Your task to perform on an android device: Open the calendar and show me this week's events? Image 0: 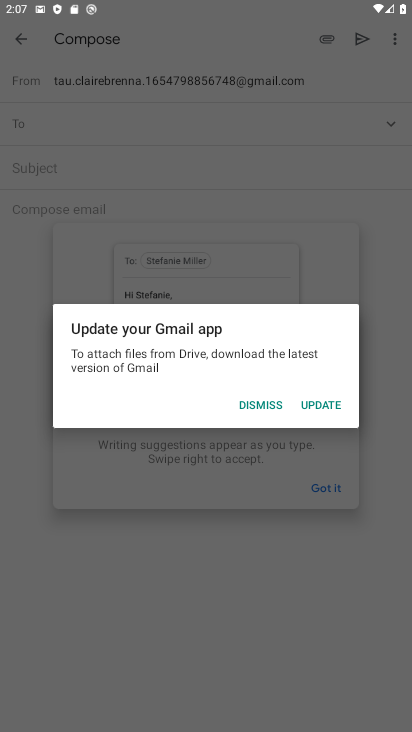
Step 0: press home button
Your task to perform on an android device: Open the calendar and show me this week's events? Image 1: 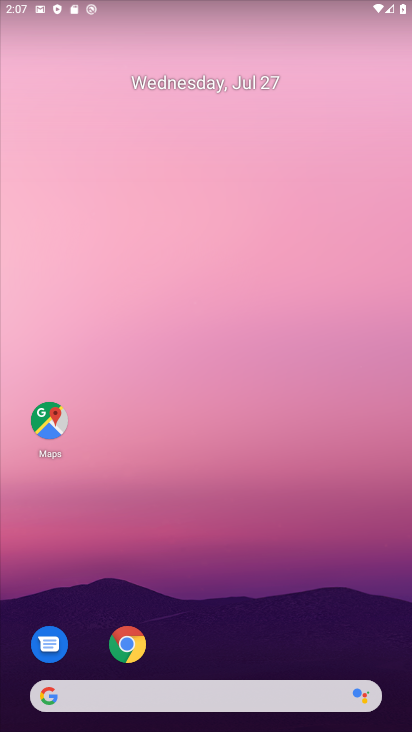
Step 1: drag from (182, 623) to (204, 20)
Your task to perform on an android device: Open the calendar and show me this week's events? Image 2: 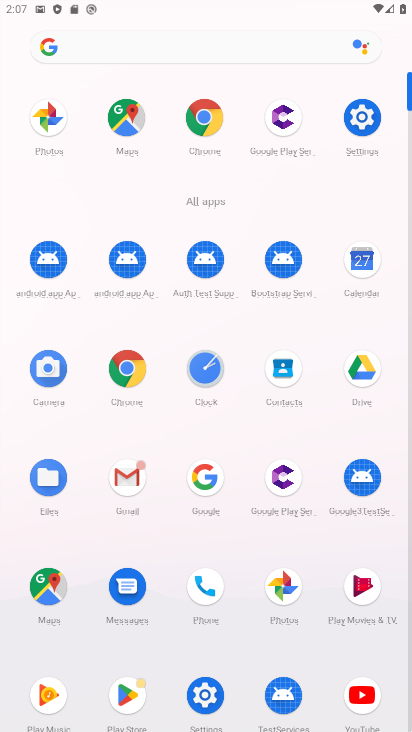
Step 2: click (364, 307)
Your task to perform on an android device: Open the calendar and show me this week's events? Image 3: 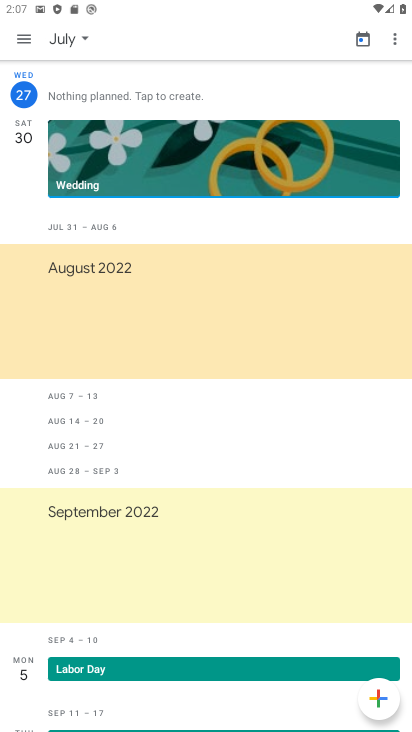
Step 3: click (28, 43)
Your task to perform on an android device: Open the calendar and show me this week's events? Image 4: 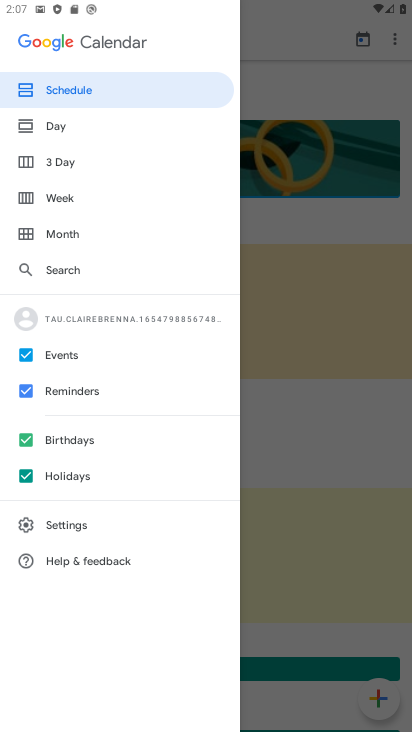
Step 4: click (56, 394)
Your task to perform on an android device: Open the calendar and show me this week's events? Image 5: 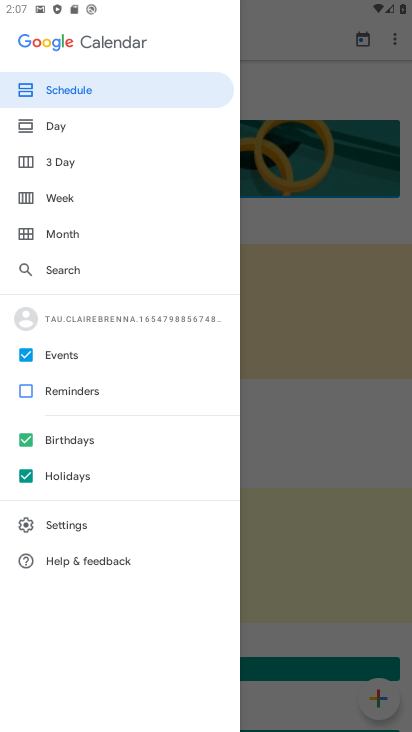
Step 5: click (71, 447)
Your task to perform on an android device: Open the calendar and show me this week's events? Image 6: 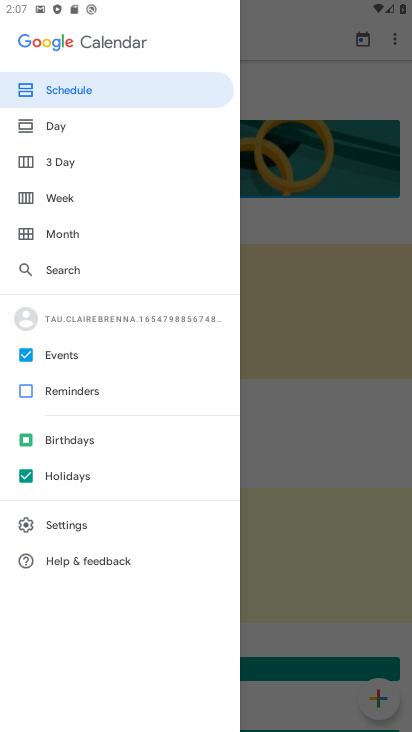
Step 6: click (68, 475)
Your task to perform on an android device: Open the calendar and show me this week's events? Image 7: 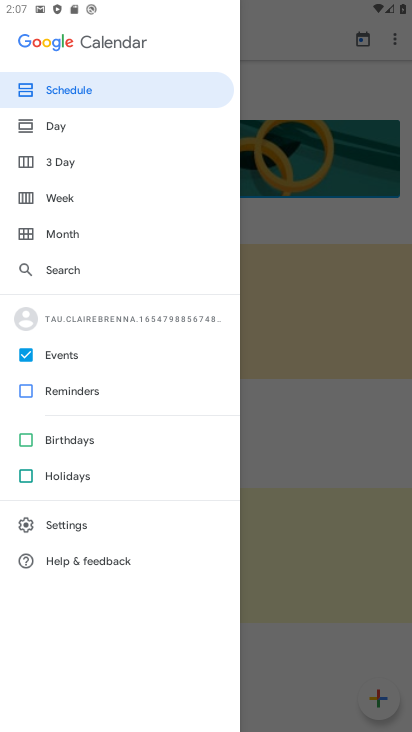
Step 7: click (73, 200)
Your task to perform on an android device: Open the calendar and show me this week's events? Image 8: 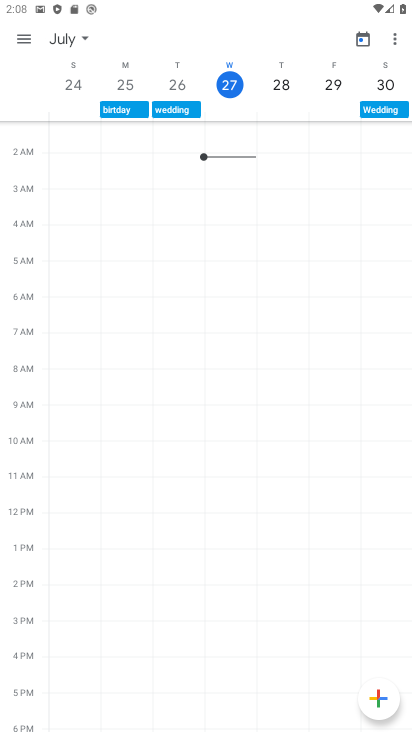
Step 8: task complete